Your task to perform on an android device: add a contact in the contacts app Image 0: 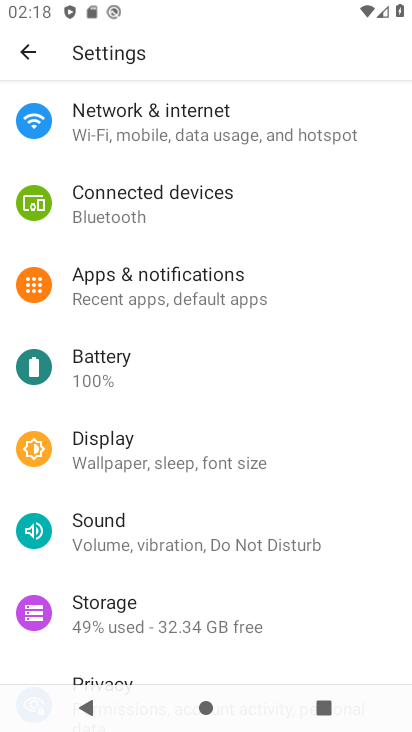
Step 0: press home button
Your task to perform on an android device: add a contact in the contacts app Image 1: 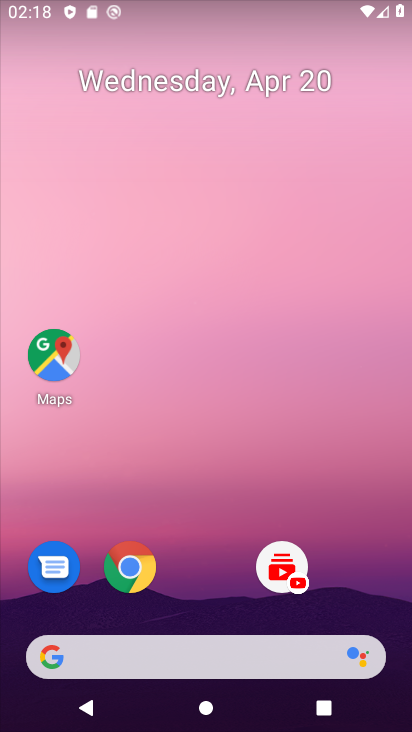
Step 1: drag from (181, 508) to (208, 131)
Your task to perform on an android device: add a contact in the contacts app Image 2: 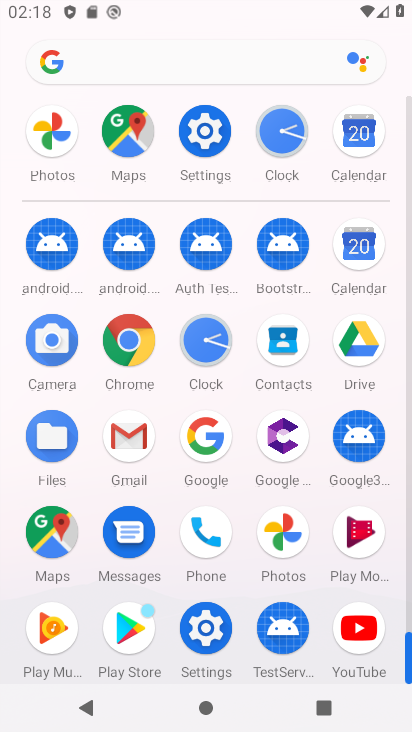
Step 2: click (293, 352)
Your task to perform on an android device: add a contact in the contacts app Image 3: 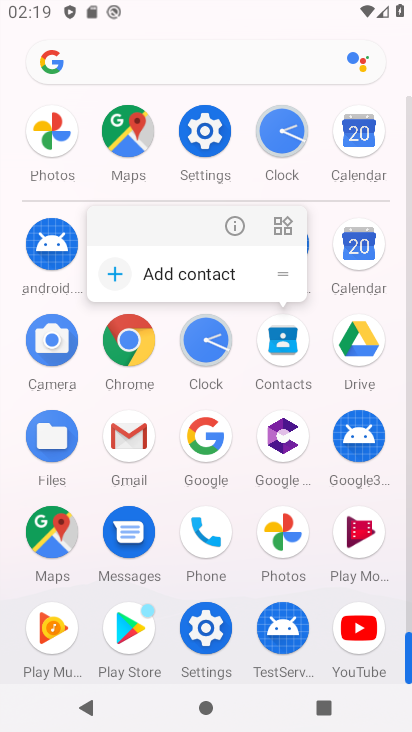
Step 3: click (241, 211)
Your task to perform on an android device: add a contact in the contacts app Image 4: 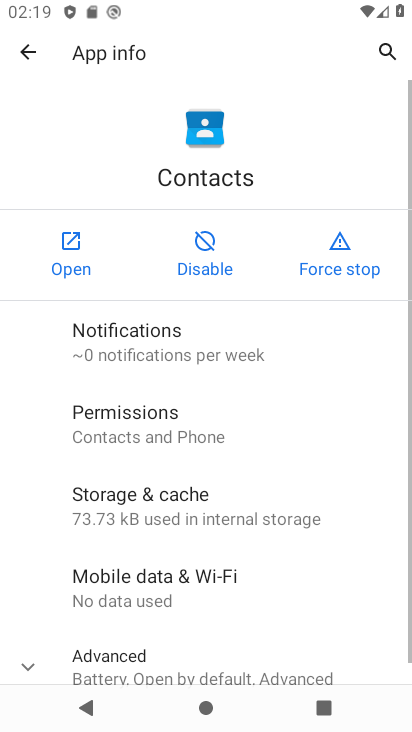
Step 4: click (90, 248)
Your task to perform on an android device: add a contact in the contacts app Image 5: 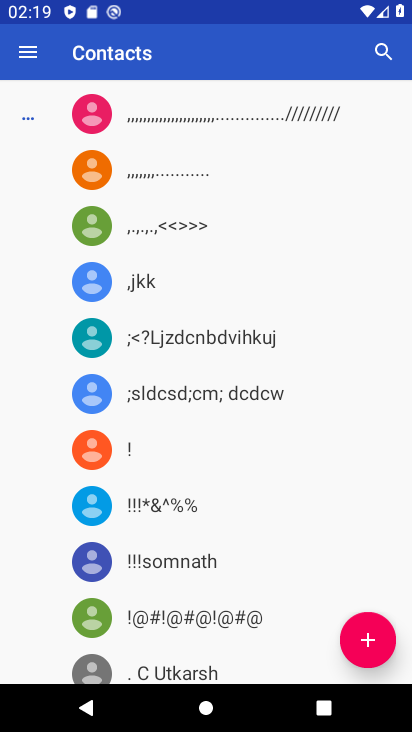
Step 5: click (349, 644)
Your task to perform on an android device: add a contact in the contacts app Image 6: 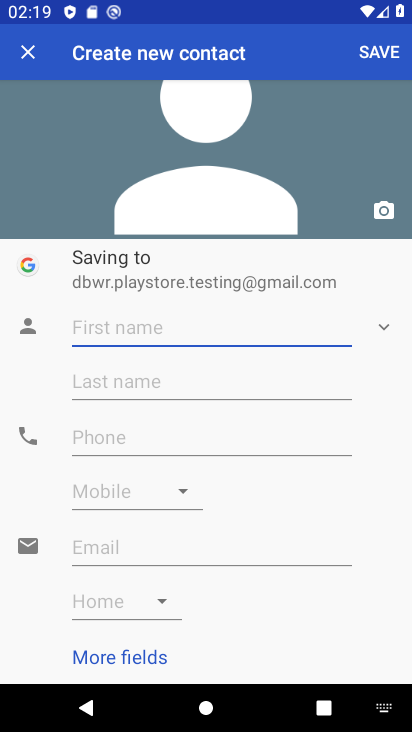
Step 6: click (140, 331)
Your task to perform on an android device: add a contact in the contacts app Image 7: 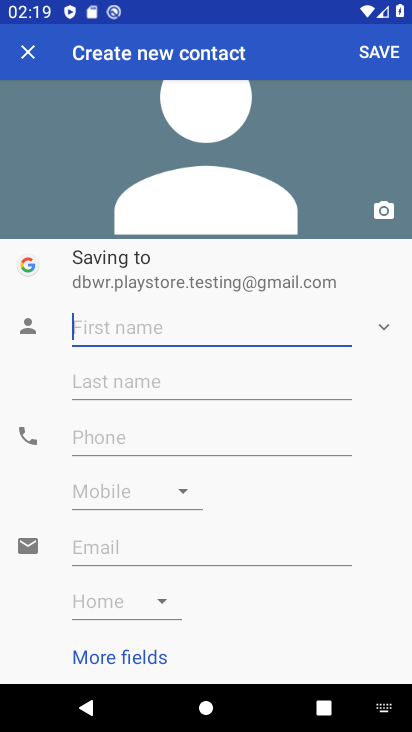
Step 7: type "kjl/"
Your task to perform on an android device: add a contact in the contacts app Image 8: 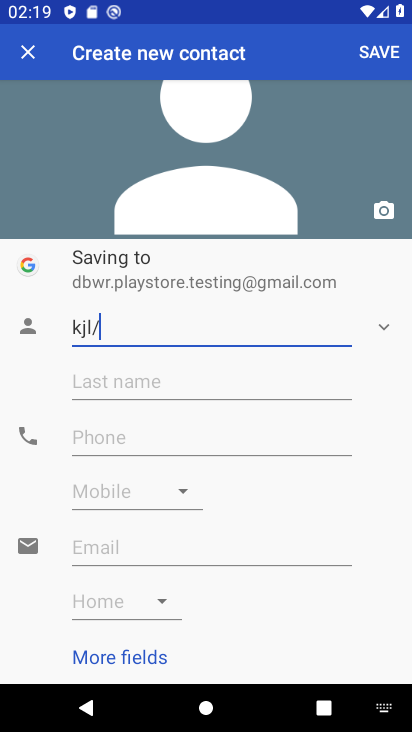
Step 8: click (373, 37)
Your task to perform on an android device: add a contact in the contacts app Image 9: 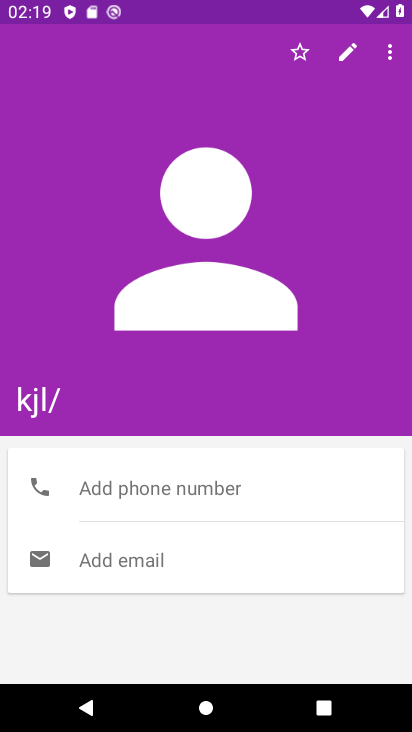
Step 9: task complete